Your task to perform on an android device: Go to Android settings Image 0: 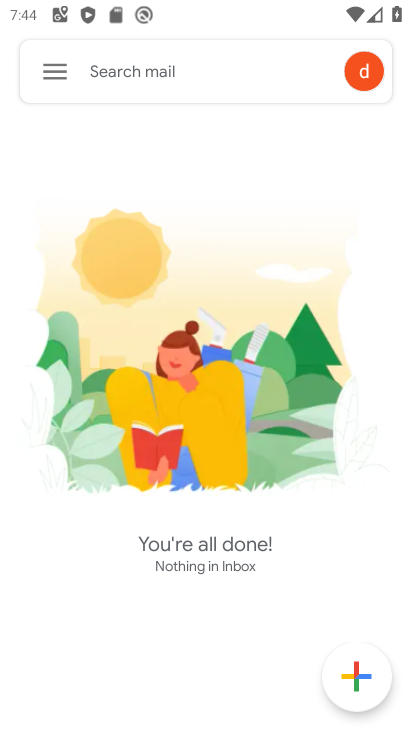
Step 0: press home button
Your task to perform on an android device: Go to Android settings Image 1: 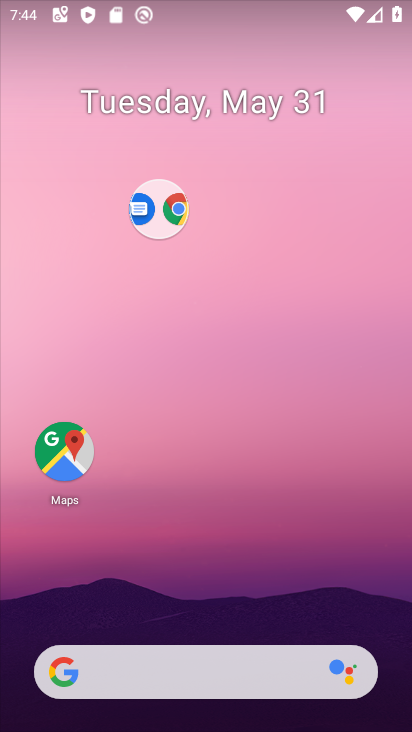
Step 1: drag from (200, 622) to (170, 222)
Your task to perform on an android device: Go to Android settings Image 2: 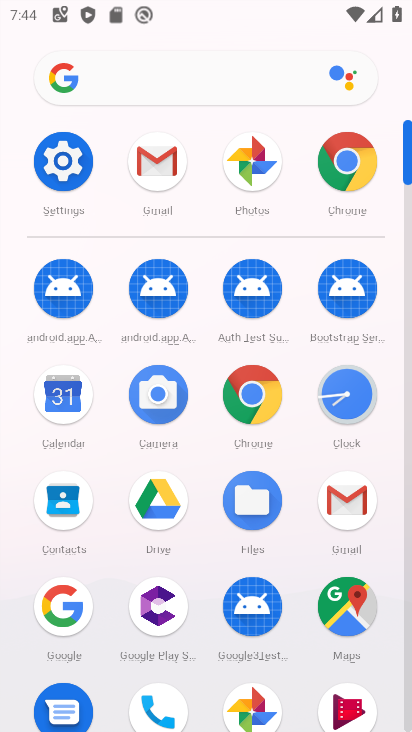
Step 2: click (60, 168)
Your task to perform on an android device: Go to Android settings Image 3: 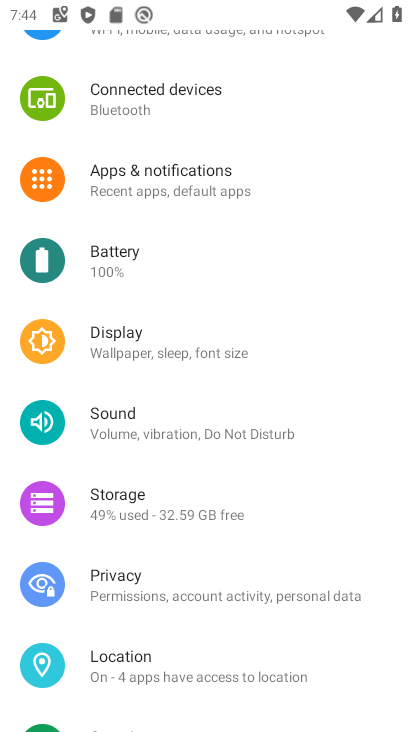
Step 3: drag from (225, 646) to (212, 281)
Your task to perform on an android device: Go to Android settings Image 4: 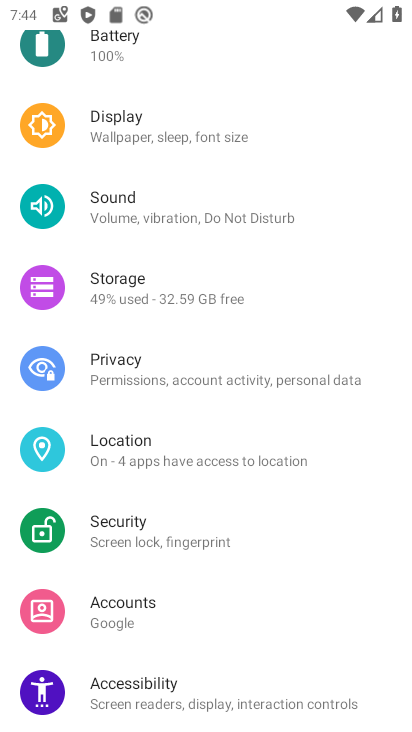
Step 4: drag from (189, 700) to (169, 341)
Your task to perform on an android device: Go to Android settings Image 5: 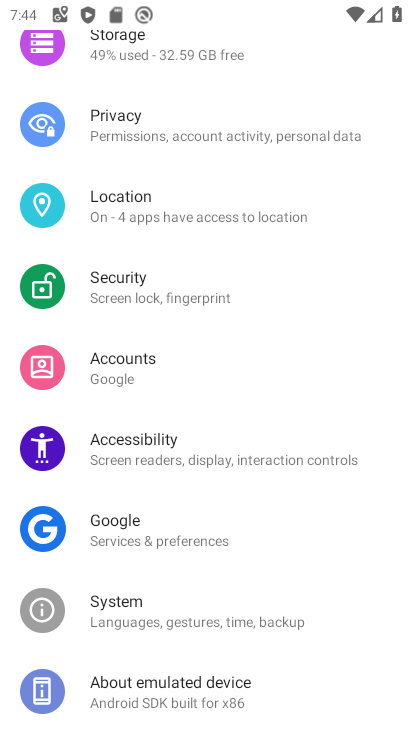
Step 5: click (158, 688)
Your task to perform on an android device: Go to Android settings Image 6: 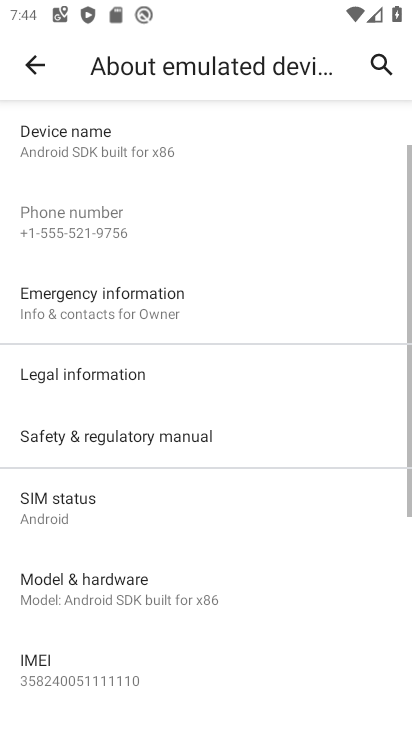
Step 6: drag from (123, 639) to (132, 348)
Your task to perform on an android device: Go to Android settings Image 7: 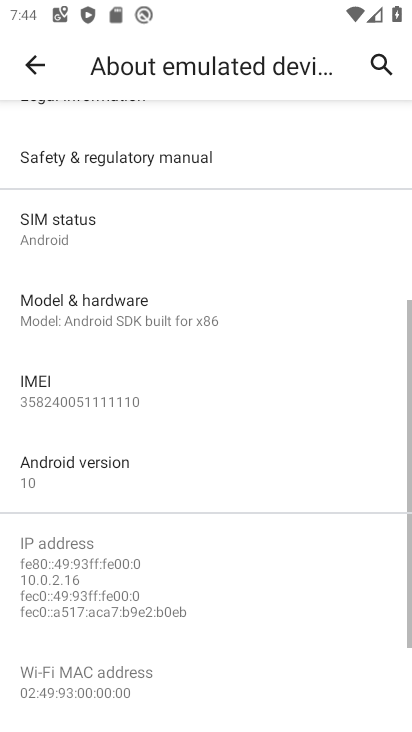
Step 7: click (78, 478)
Your task to perform on an android device: Go to Android settings Image 8: 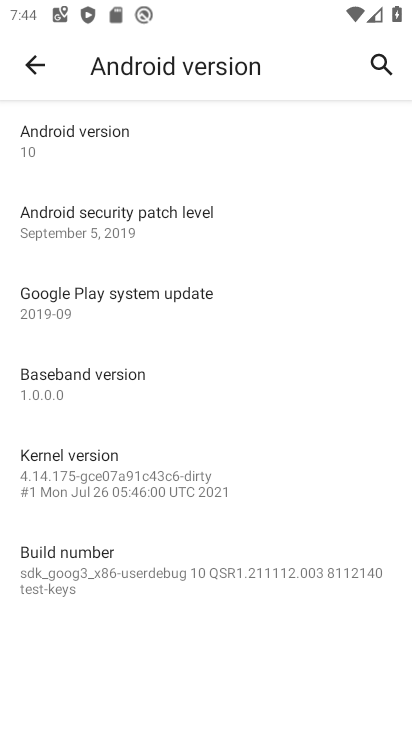
Step 8: task complete